Your task to perform on an android device: Open the calendar app, open the side menu, and click the "Day" option Image 0: 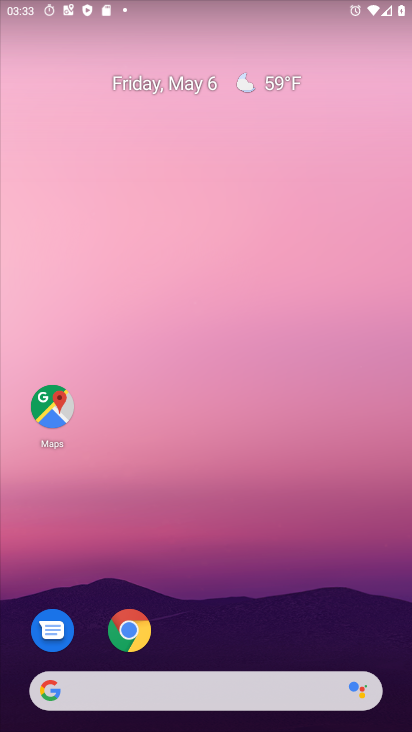
Step 0: drag from (227, 654) to (232, 210)
Your task to perform on an android device: Open the calendar app, open the side menu, and click the "Day" option Image 1: 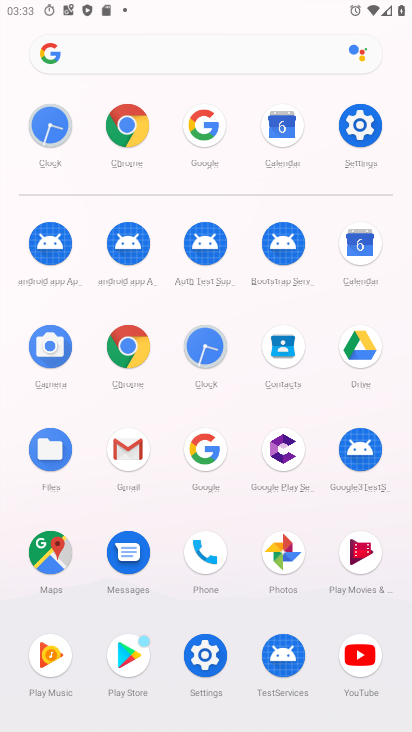
Step 1: click (363, 253)
Your task to perform on an android device: Open the calendar app, open the side menu, and click the "Day" option Image 2: 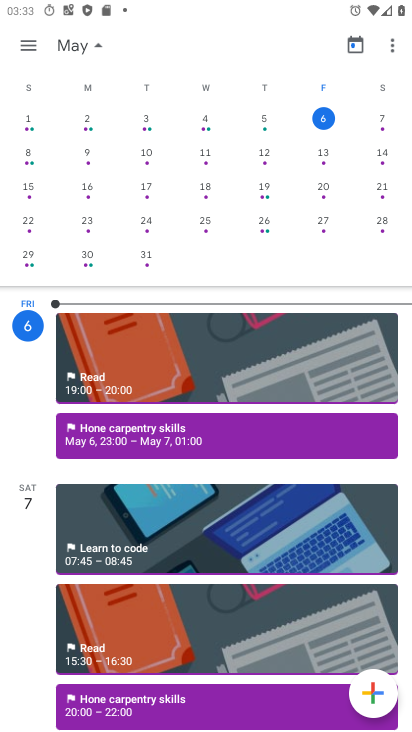
Step 2: click (24, 41)
Your task to perform on an android device: Open the calendar app, open the side menu, and click the "Day" option Image 3: 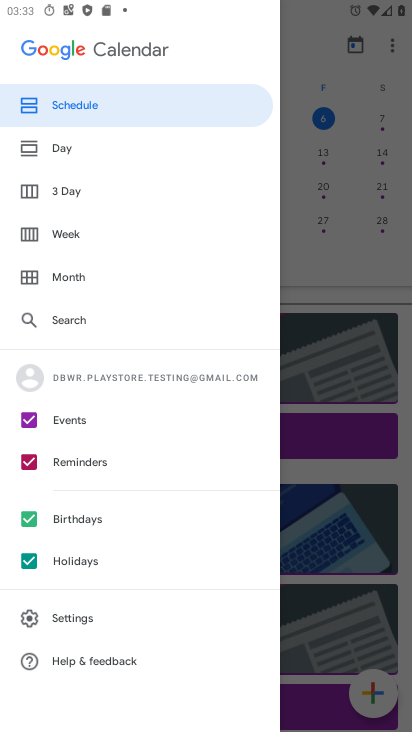
Step 3: click (84, 150)
Your task to perform on an android device: Open the calendar app, open the side menu, and click the "Day" option Image 4: 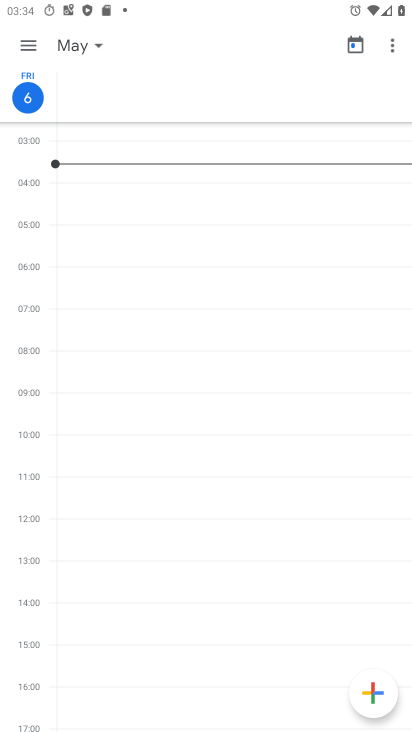
Step 4: task complete